Your task to perform on an android device: What's US dollar exchange rate against the Japanese Yen? Image 0: 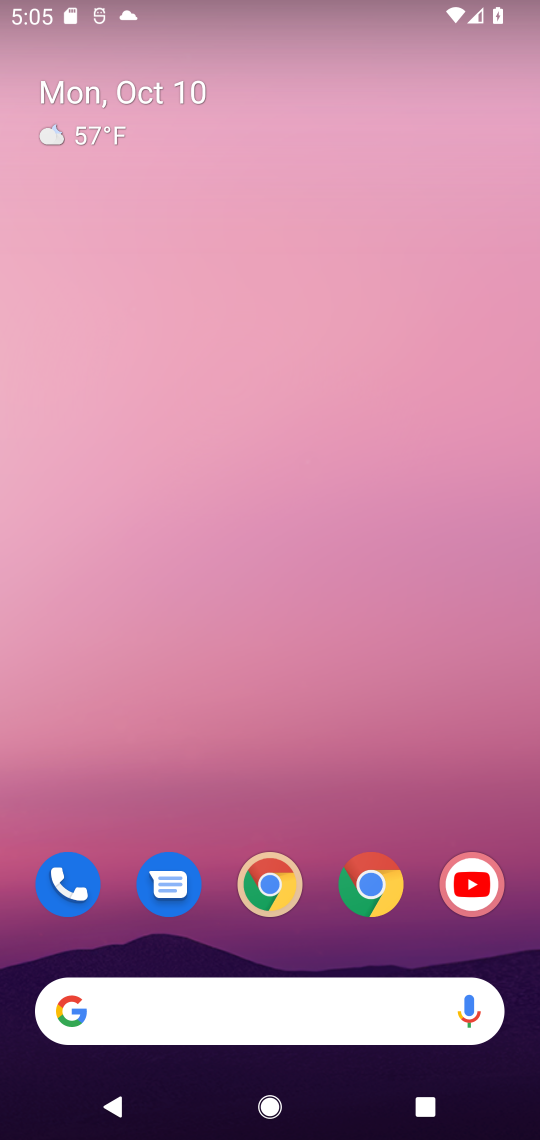
Step 0: click (372, 875)
Your task to perform on an android device: What's US dollar exchange rate against the Japanese Yen? Image 1: 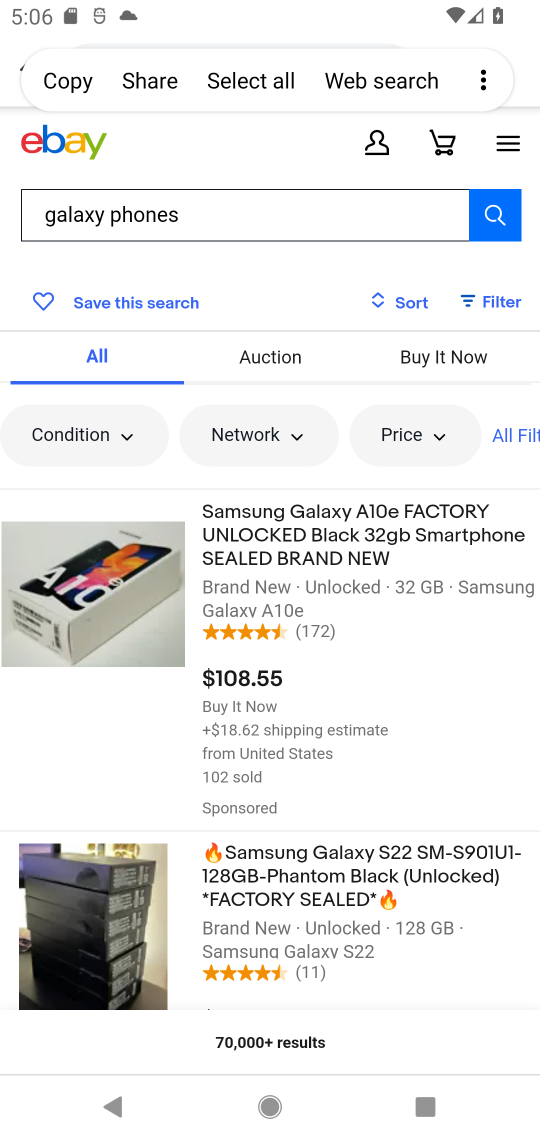
Step 1: press back button
Your task to perform on an android device: What's US dollar exchange rate against the Japanese Yen? Image 2: 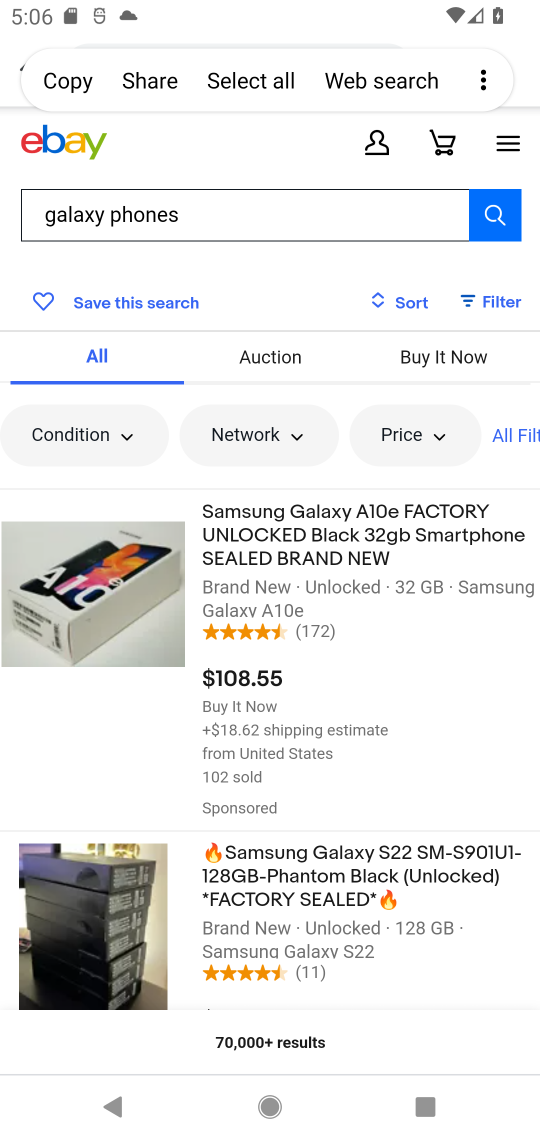
Step 2: press back button
Your task to perform on an android device: What's US dollar exchange rate against the Japanese Yen? Image 3: 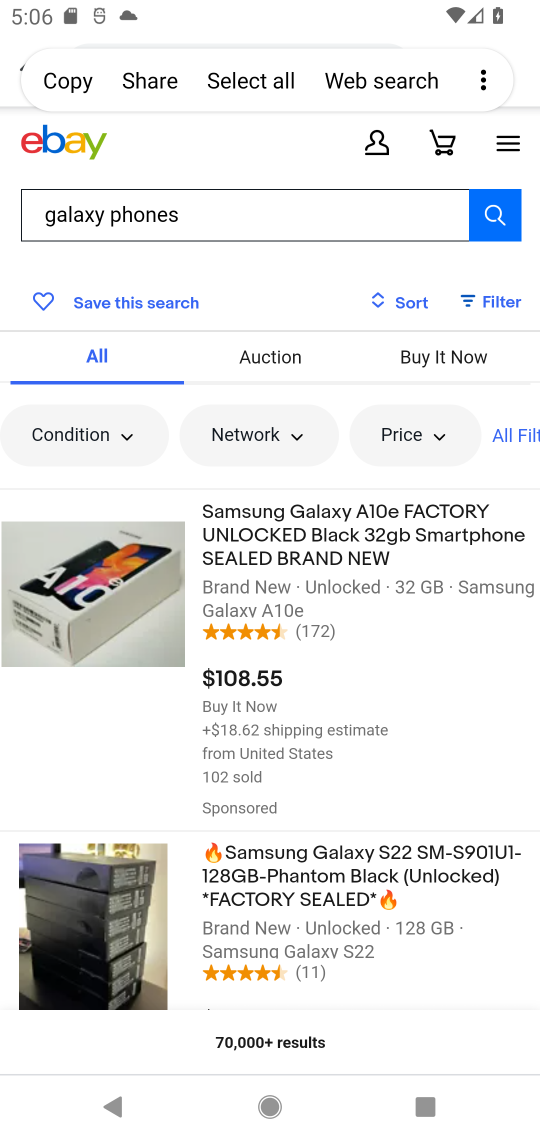
Step 3: press back button
Your task to perform on an android device: What's US dollar exchange rate against the Japanese Yen? Image 4: 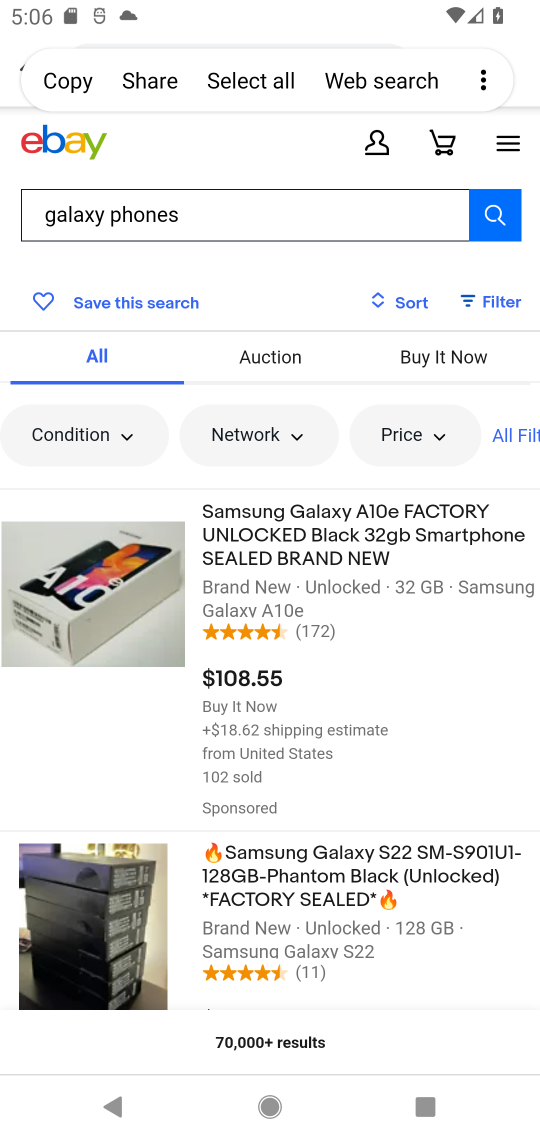
Step 4: press back button
Your task to perform on an android device: What's US dollar exchange rate against the Japanese Yen? Image 5: 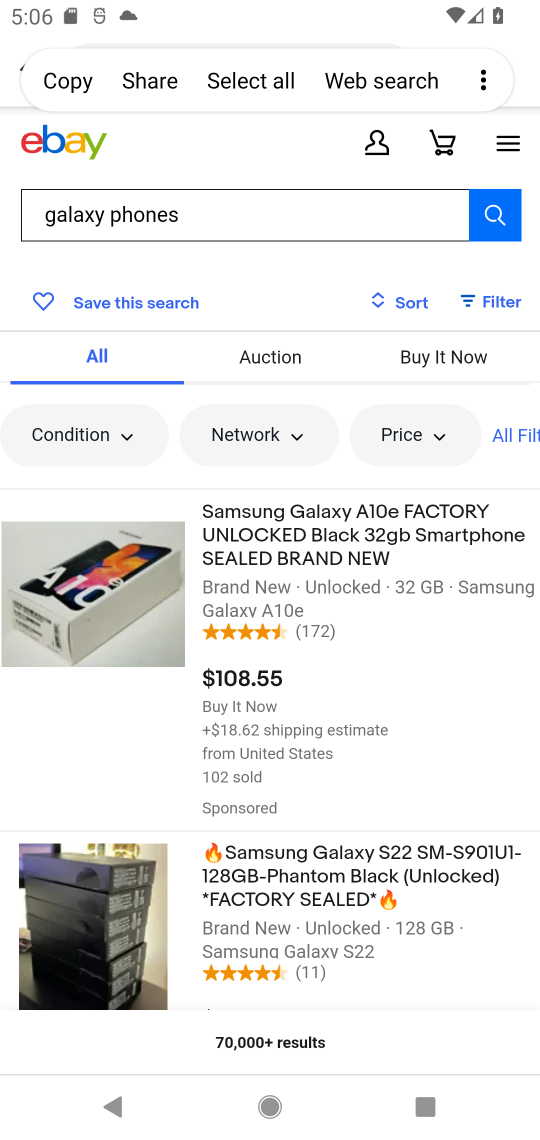
Step 5: press back button
Your task to perform on an android device: What's US dollar exchange rate against the Japanese Yen? Image 6: 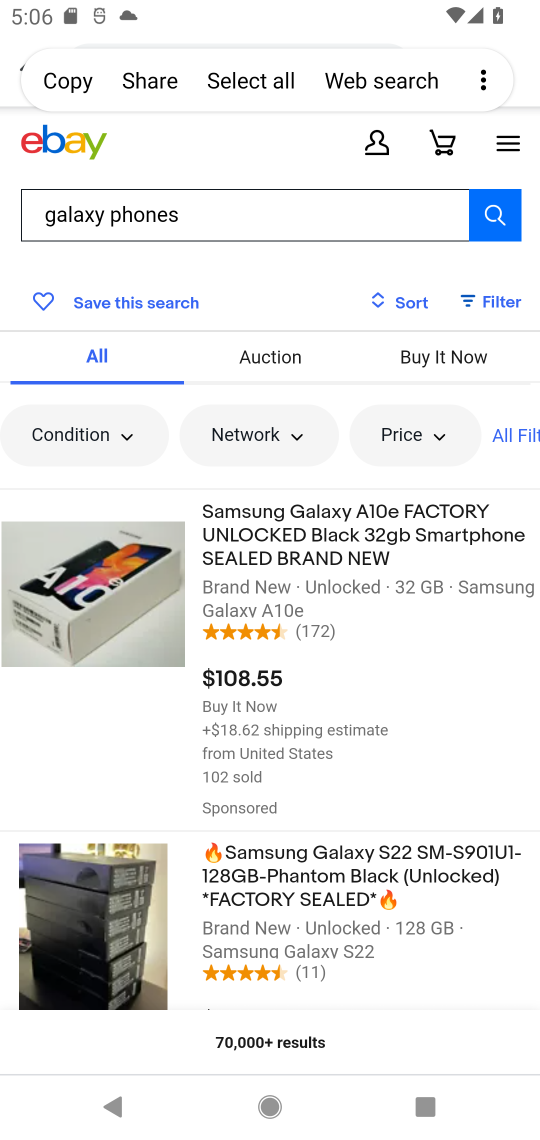
Step 6: press back button
Your task to perform on an android device: What's US dollar exchange rate against the Japanese Yen? Image 7: 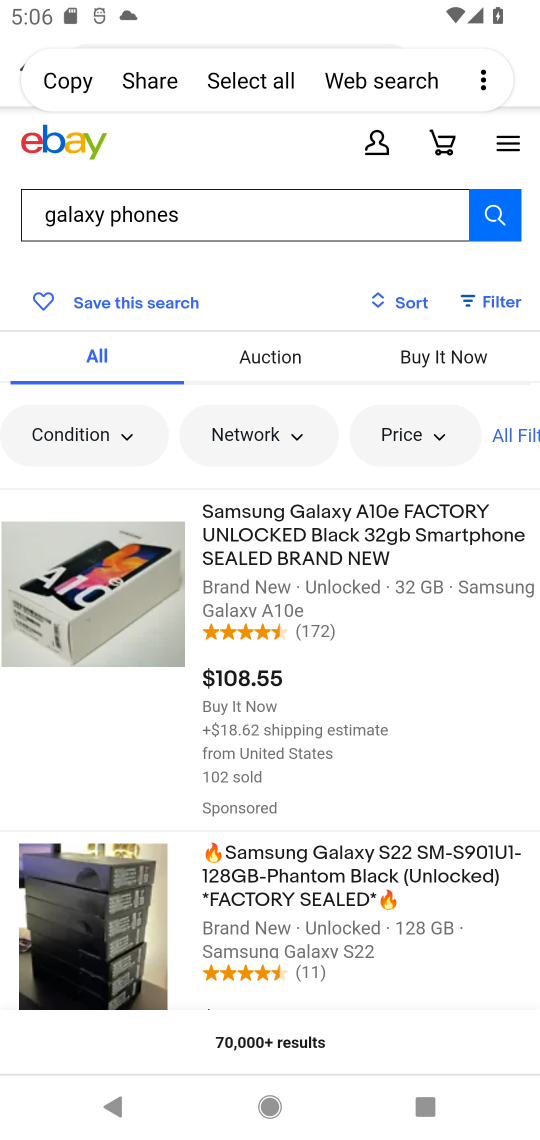
Step 7: press home button
Your task to perform on an android device: What's US dollar exchange rate against the Japanese Yen? Image 8: 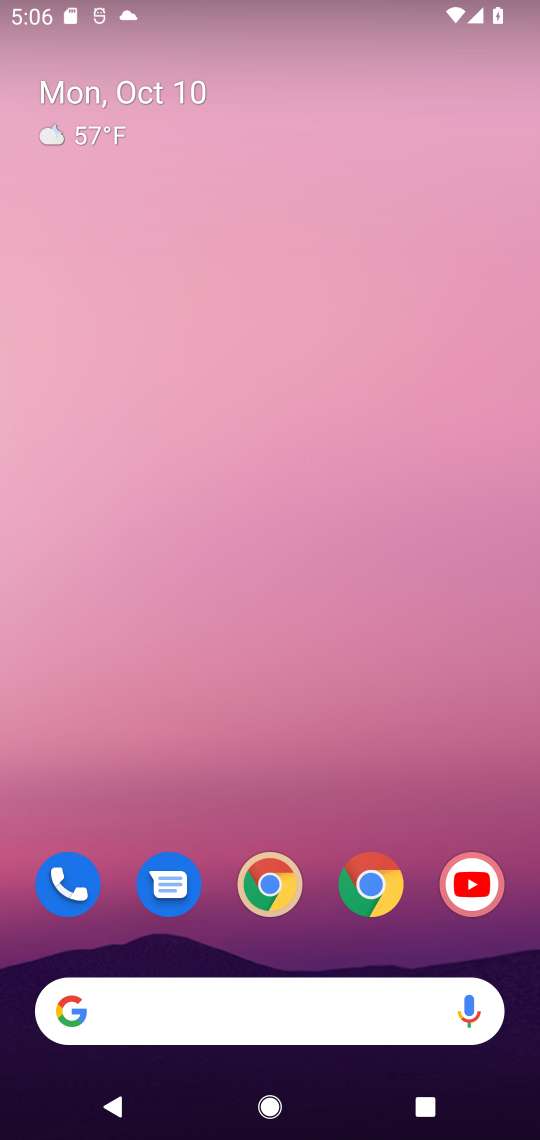
Step 8: click (360, 898)
Your task to perform on an android device: What's US dollar exchange rate against the Japanese Yen? Image 9: 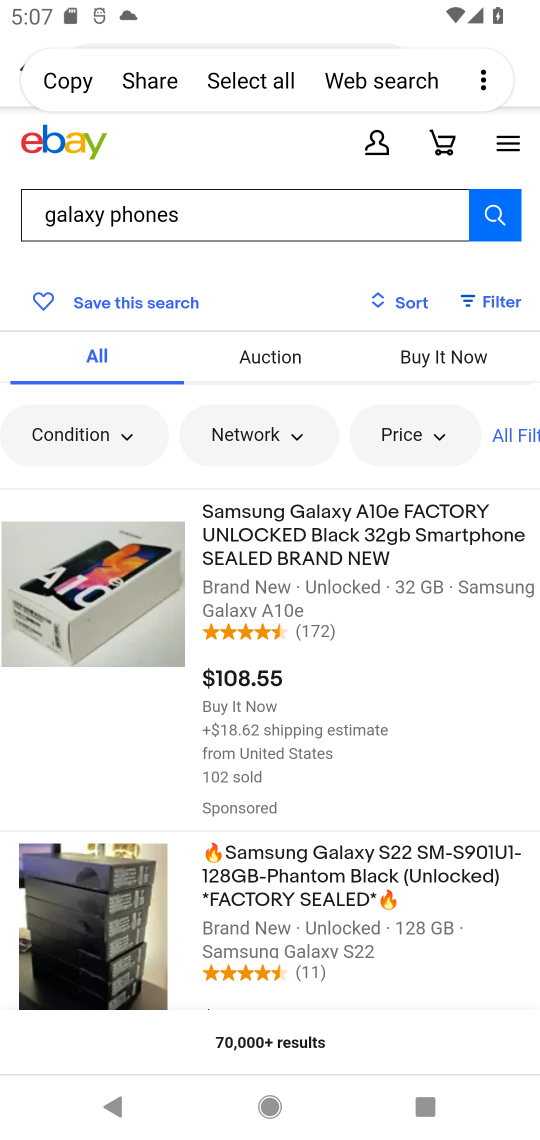
Step 9: click (6, 49)
Your task to perform on an android device: What's US dollar exchange rate against the Japanese Yen? Image 10: 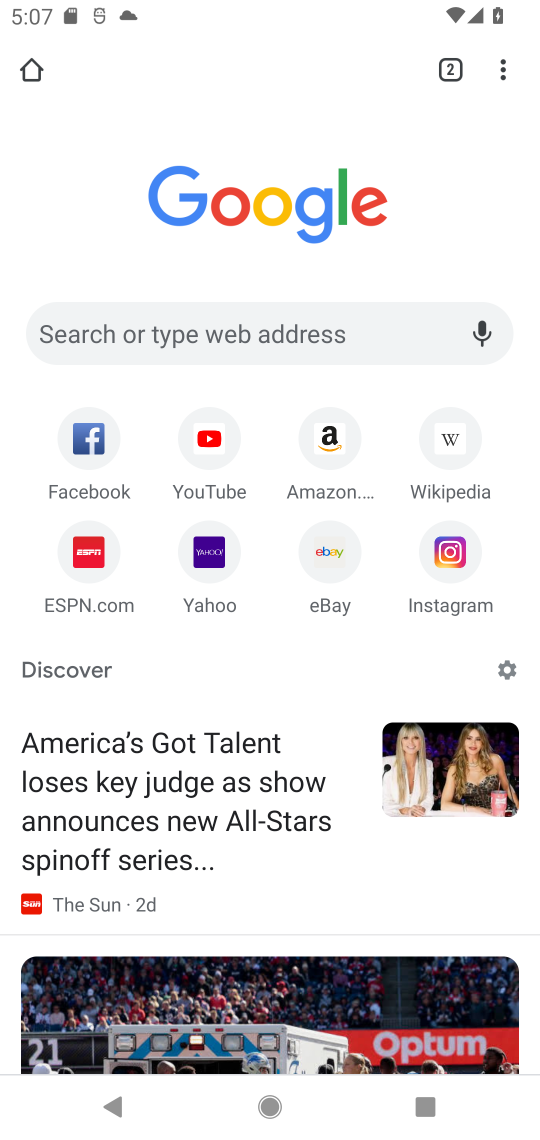
Step 10: click (236, 338)
Your task to perform on an android device: What's US dollar exchange rate against the Japanese Yen? Image 11: 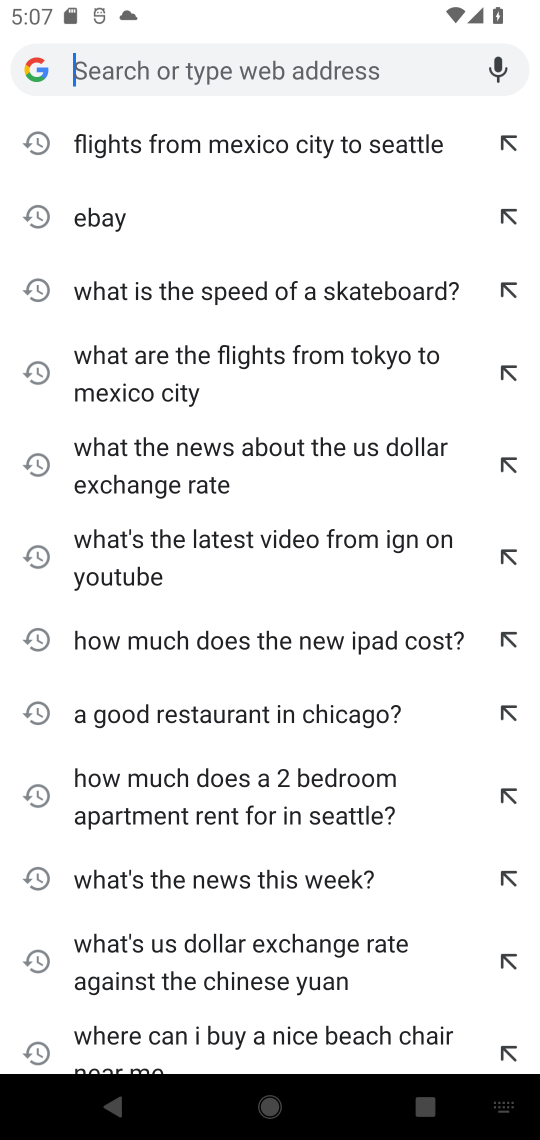
Step 11: type "What's US dollar exchange rate against the Japanese Yen?"
Your task to perform on an android device: What's US dollar exchange rate against the Japanese Yen? Image 12: 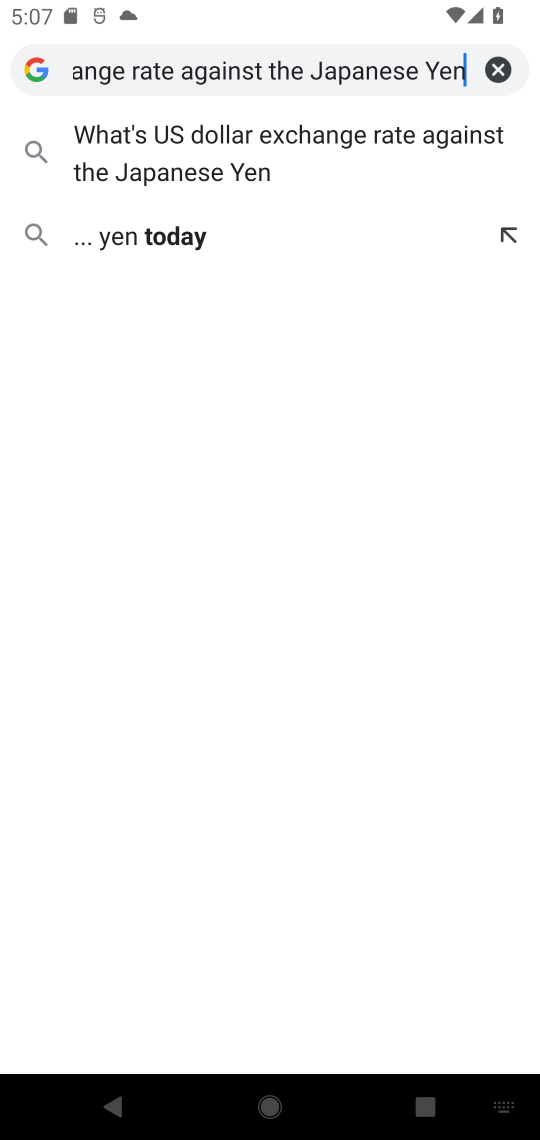
Step 12: click (206, 181)
Your task to perform on an android device: What's US dollar exchange rate against the Japanese Yen? Image 13: 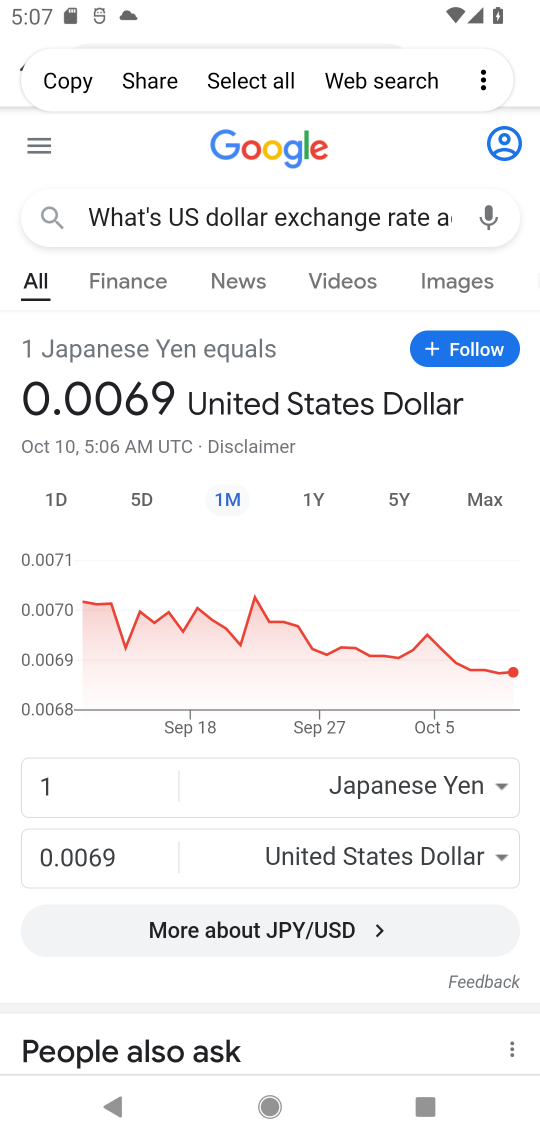
Step 13: task complete